Your task to perform on an android device: snooze an email in the gmail app Image 0: 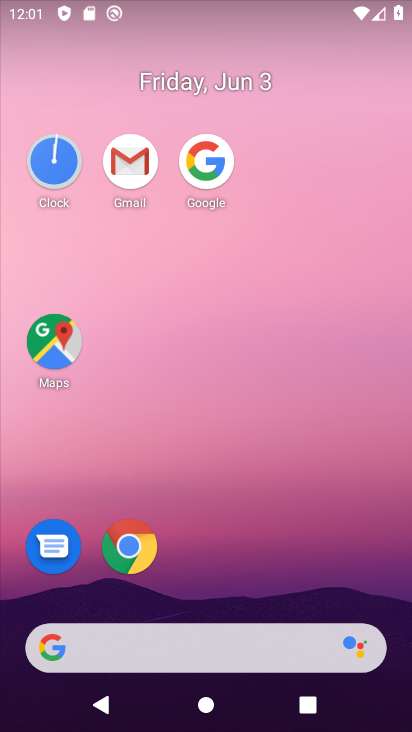
Step 0: click (126, 163)
Your task to perform on an android device: snooze an email in the gmail app Image 1: 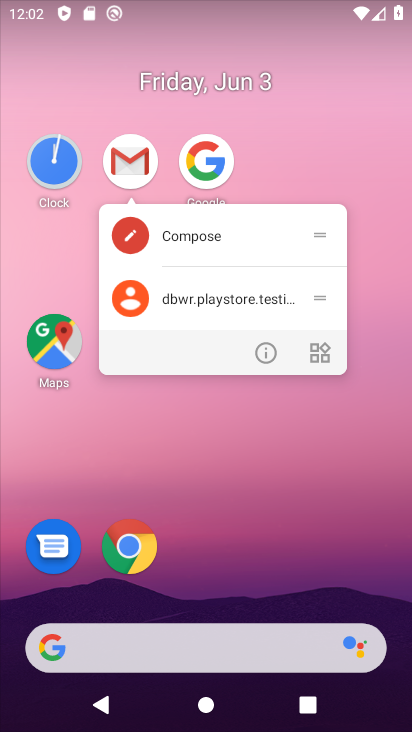
Step 1: click (118, 165)
Your task to perform on an android device: snooze an email in the gmail app Image 2: 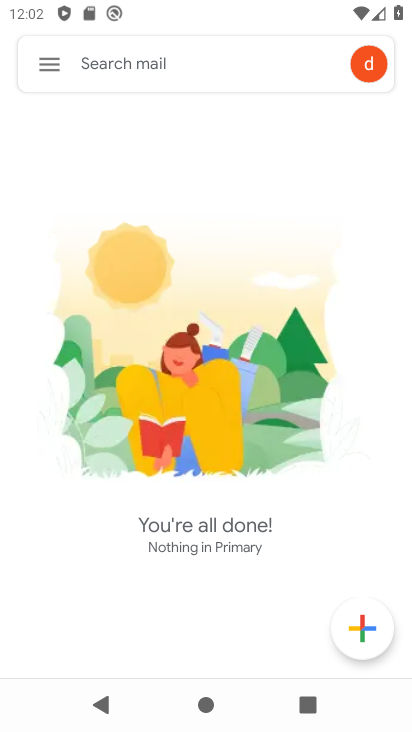
Step 2: click (37, 84)
Your task to perform on an android device: snooze an email in the gmail app Image 3: 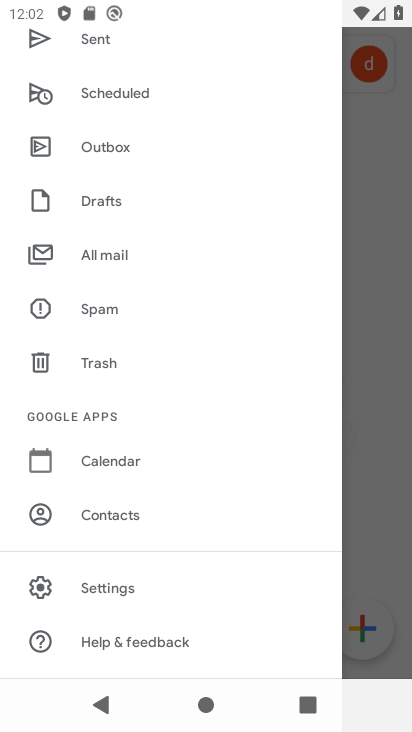
Step 3: drag from (200, 131) to (207, 424)
Your task to perform on an android device: snooze an email in the gmail app Image 4: 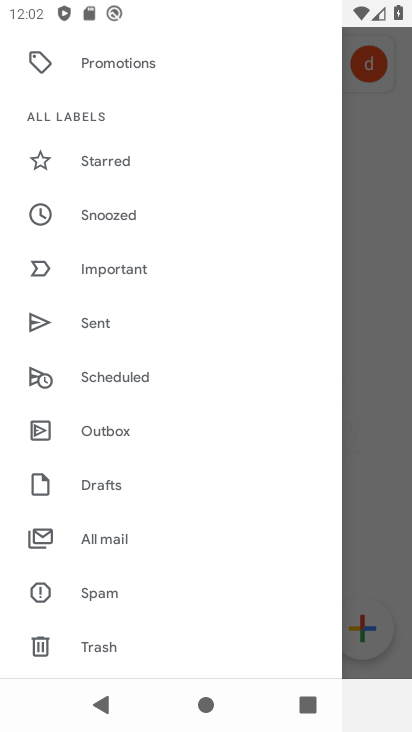
Step 4: click (170, 534)
Your task to perform on an android device: snooze an email in the gmail app Image 5: 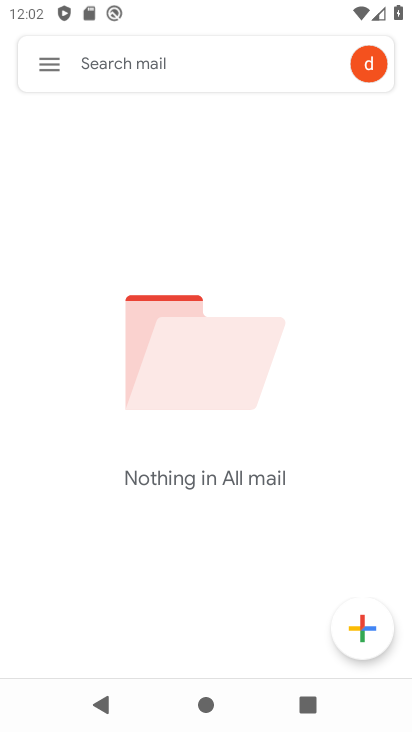
Step 5: task complete